Your task to perform on an android device: Do I have any events tomorrow? Image 0: 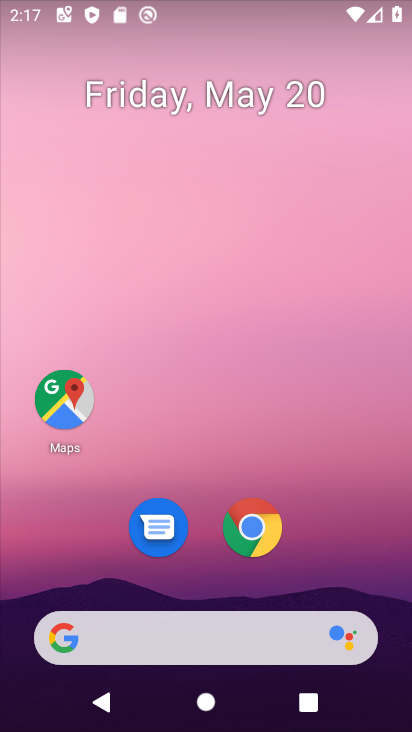
Step 0: drag from (259, 606) to (352, 63)
Your task to perform on an android device: Do I have any events tomorrow? Image 1: 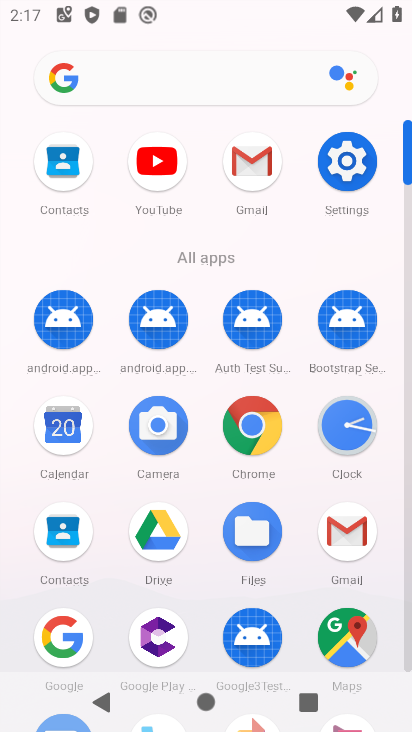
Step 1: click (72, 426)
Your task to perform on an android device: Do I have any events tomorrow? Image 2: 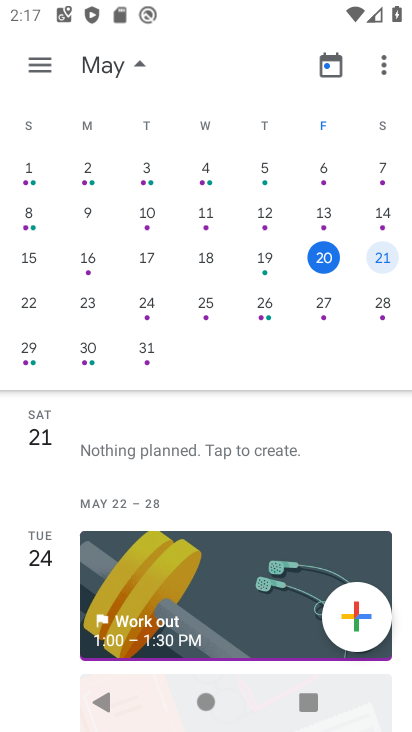
Step 2: click (380, 256)
Your task to perform on an android device: Do I have any events tomorrow? Image 3: 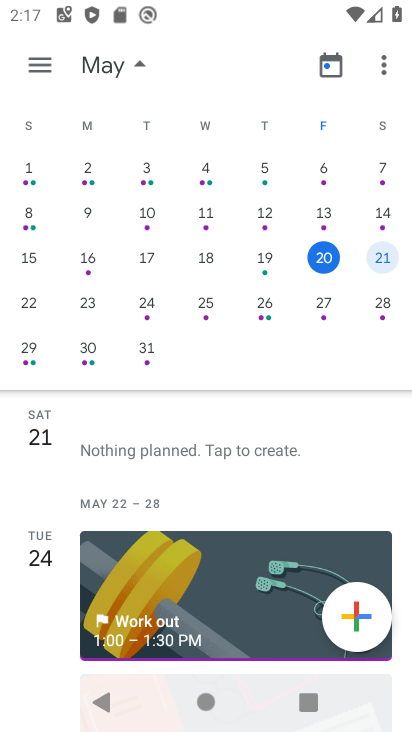
Step 3: task complete